Your task to perform on an android device: Do I have any events today? Image 0: 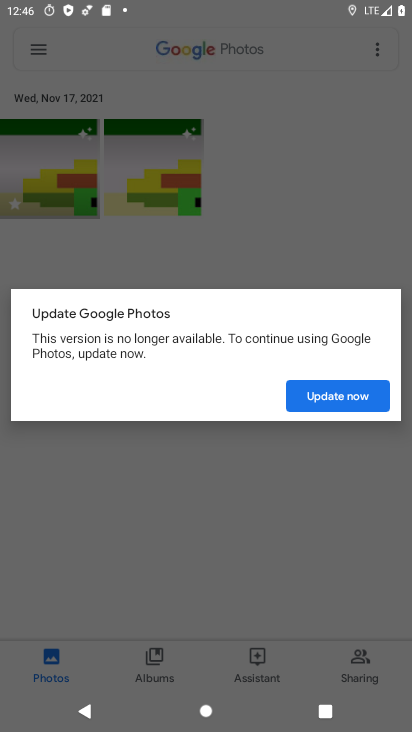
Step 0: press home button
Your task to perform on an android device: Do I have any events today? Image 1: 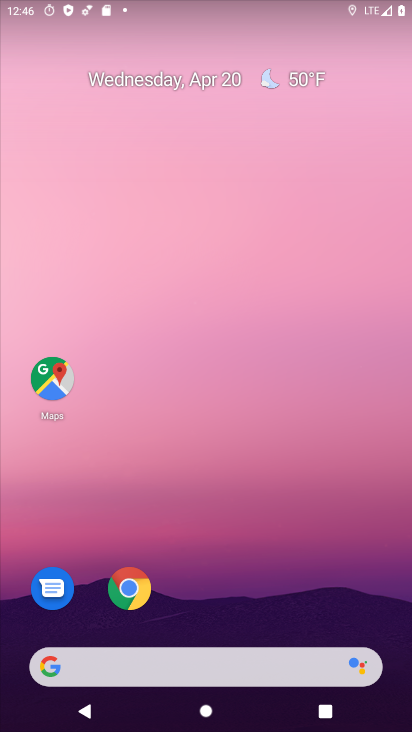
Step 1: drag from (241, 631) to (249, 7)
Your task to perform on an android device: Do I have any events today? Image 2: 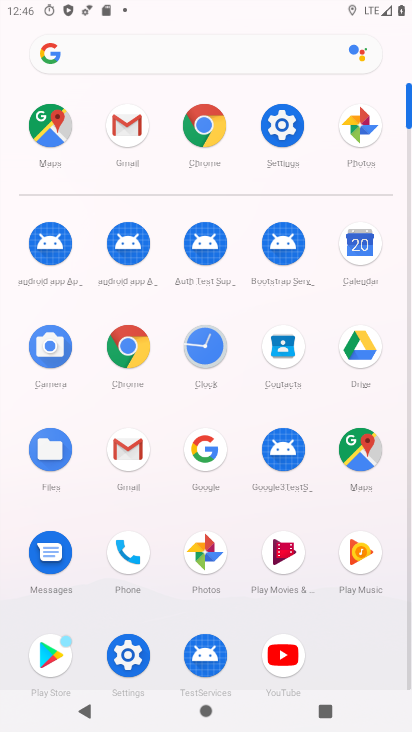
Step 2: click (358, 247)
Your task to perform on an android device: Do I have any events today? Image 3: 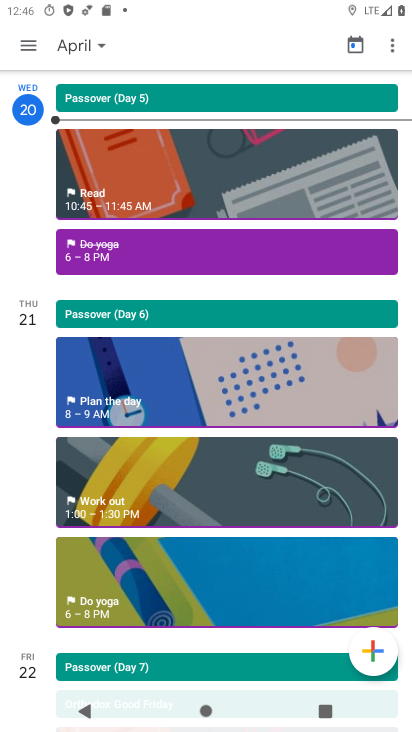
Step 3: click (20, 112)
Your task to perform on an android device: Do I have any events today? Image 4: 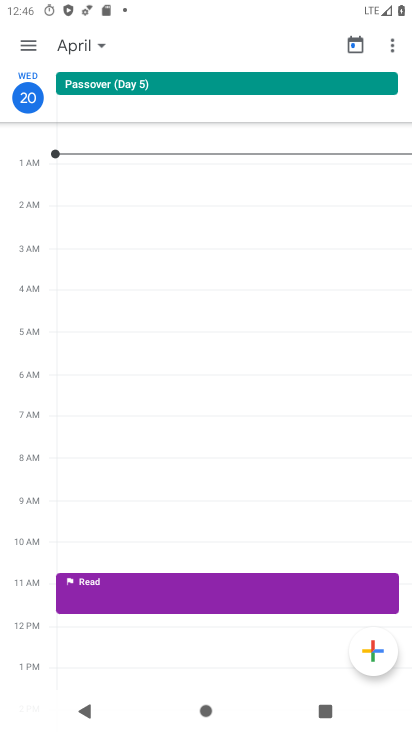
Step 4: task complete